Your task to perform on an android device: Open Reddit.com Image 0: 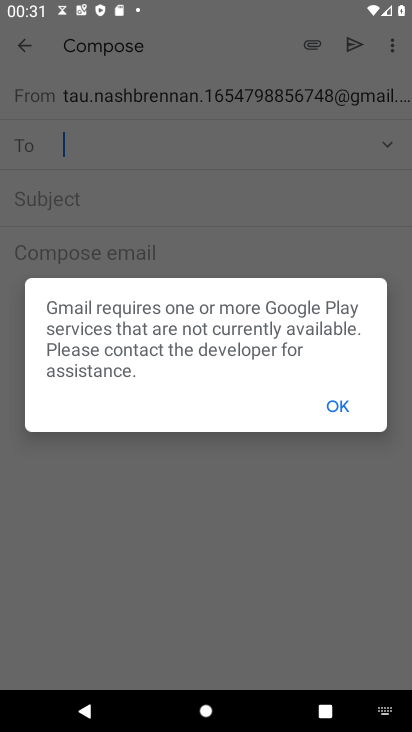
Step 0: click (330, 403)
Your task to perform on an android device: Open Reddit.com Image 1: 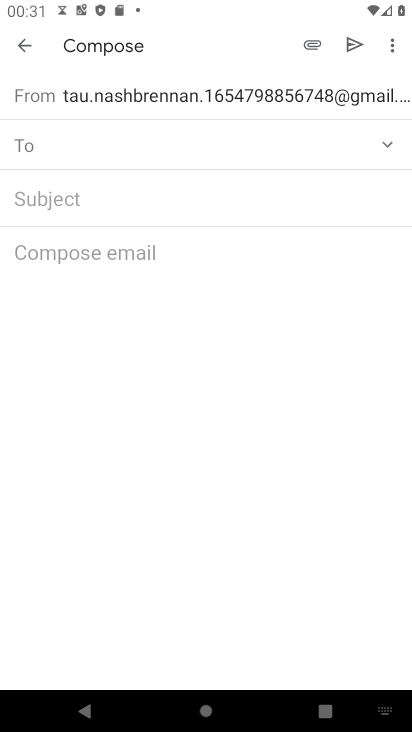
Step 1: press back button
Your task to perform on an android device: Open Reddit.com Image 2: 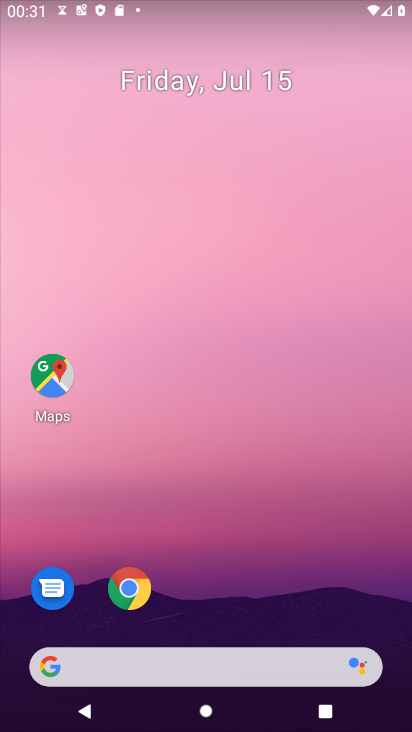
Step 2: click (132, 577)
Your task to perform on an android device: Open Reddit.com Image 3: 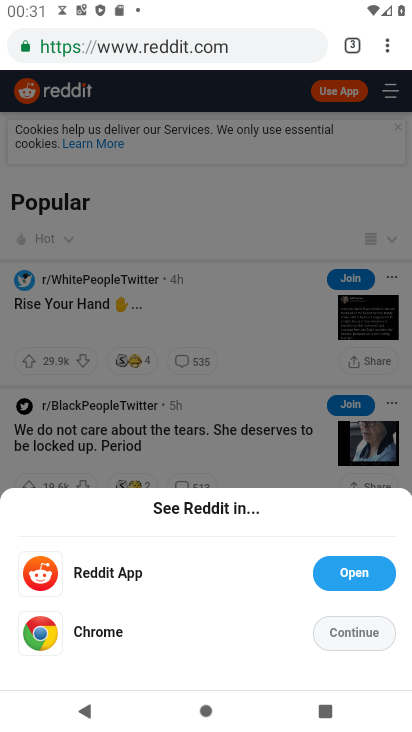
Step 3: task complete